Your task to perform on an android device: Open settings on Google Maps Image 0: 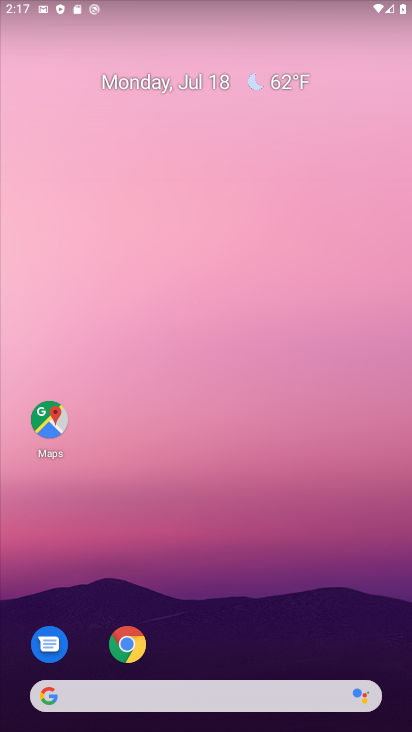
Step 0: drag from (289, 653) to (232, 146)
Your task to perform on an android device: Open settings on Google Maps Image 1: 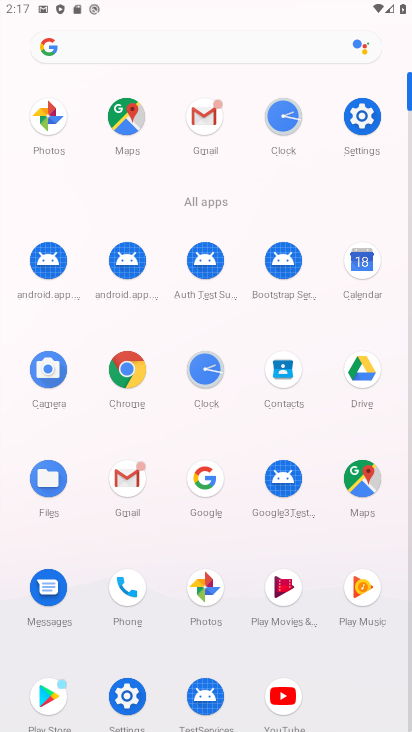
Step 1: click (366, 468)
Your task to perform on an android device: Open settings on Google Maps Image 2: 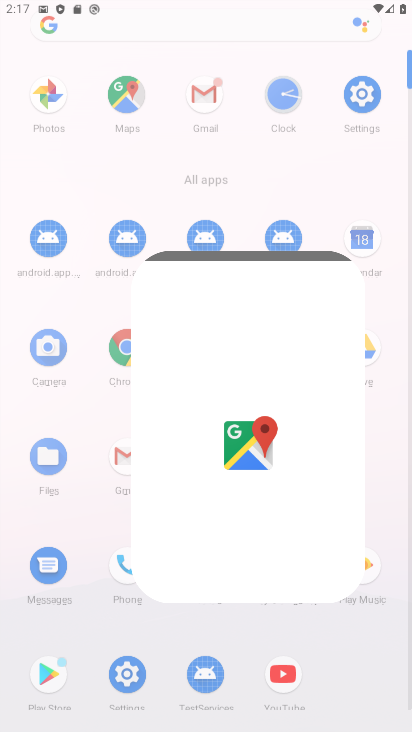
Step 2: click (367, 479)
Your task to perform on an android device: Open settings on Google Maps Image 3: 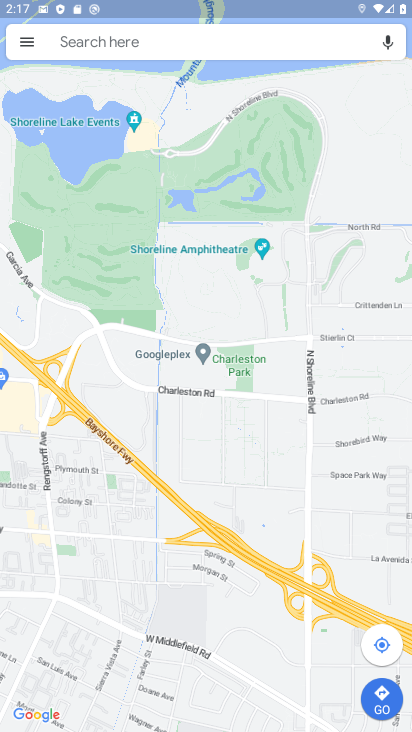
Step 3: click (22, 39)
Your task to perform on an android device: Open settings on Google Maps Image 4: 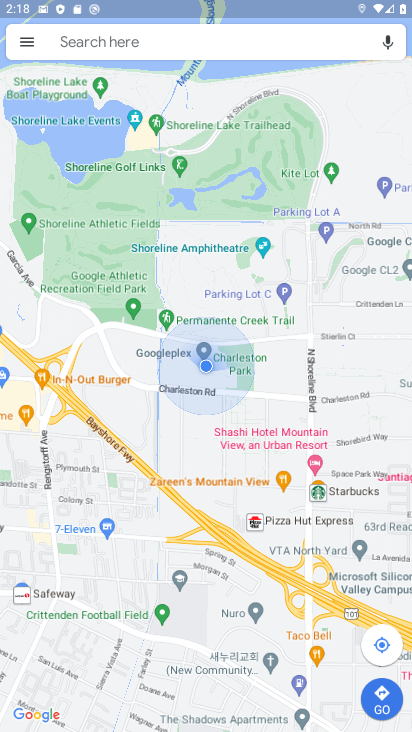
Step 4: click (23, 39)
Your task to perform on an android device: Open settings on Google Maps Image 5: 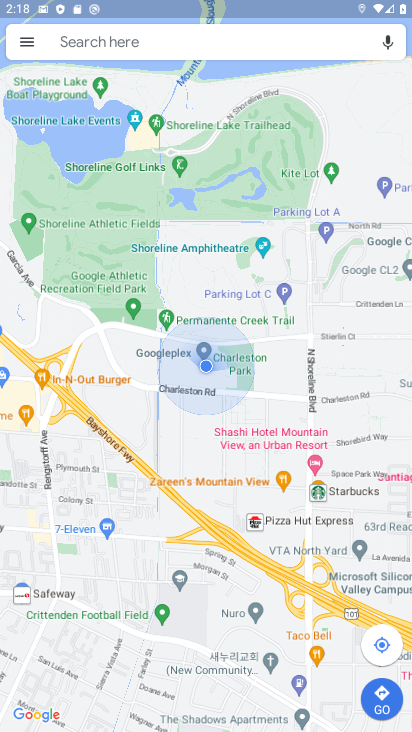
Step 5: click (24, 39)
Your task to perform on an android device: Open settings on Google Maps Image 6: 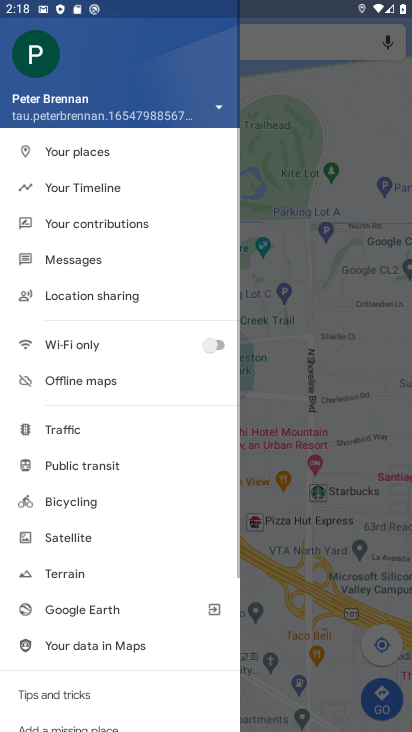
Step 6: click (23, 42)
Your task to perform on an android device: Open settings on Google Maps Image 7: 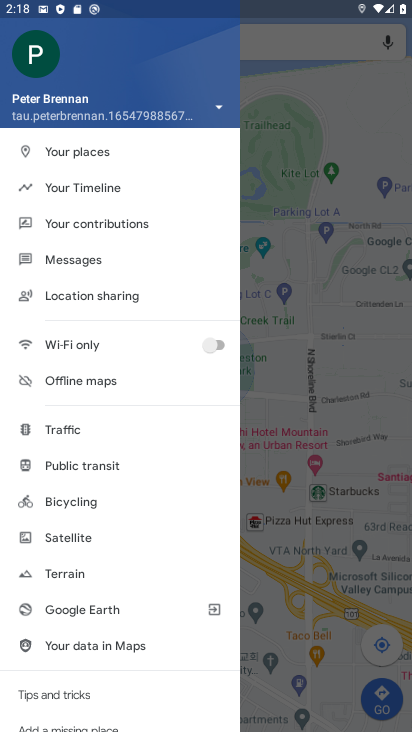
Step 7: click (93, 191)
Your task to perform on an android device: Open settings on Google Maps Image 8: 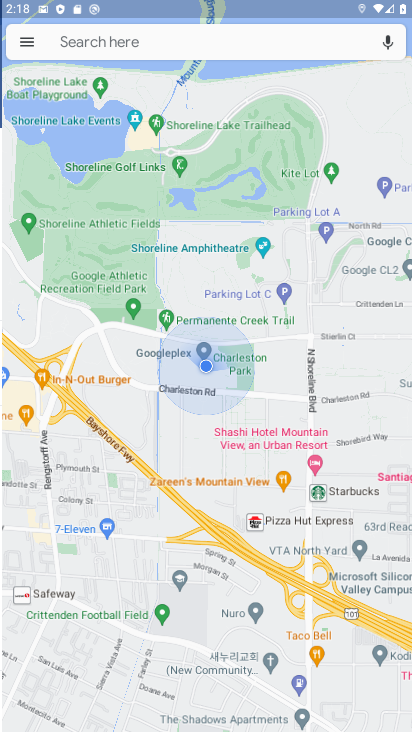
Step 8: click (93, 190)
Your task to perform on an android device: Open settings on Google Maps Image 9: 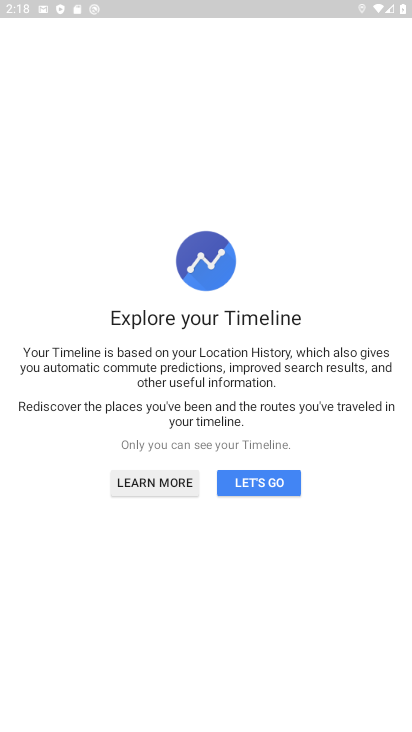
Step 9: click (91, 183)
Your task to perform on an android device: Open settings on Google Maps Image 10: 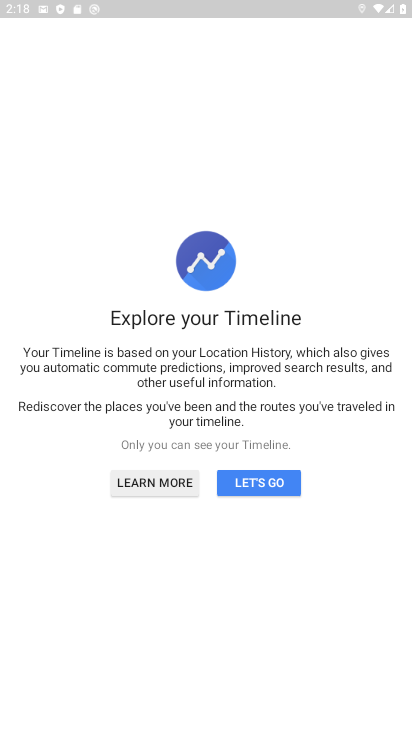
Step 10: click (274, 470)
Your task to perform on an android device: Open settings on Google Maps Image 11: 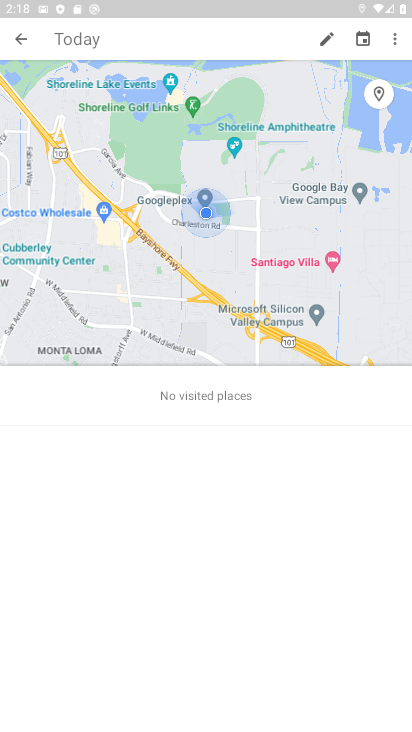
Step 11: task complete